Your task to perform on an android device: Open Maps and search for coffee Image 0: 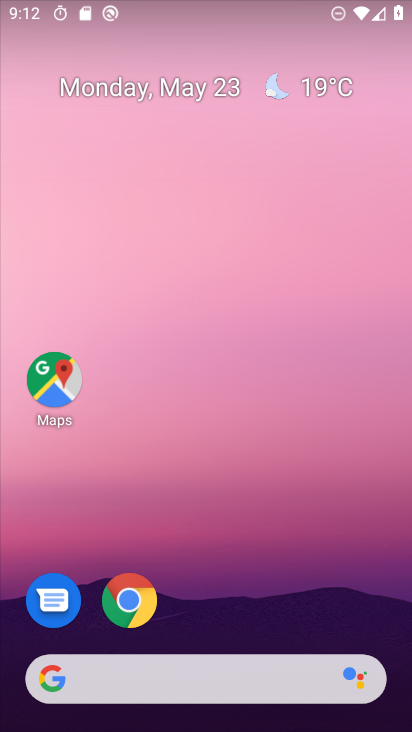
Step 0: press home button
Your task to perform on an android device: Open Maps and search for coffee Image 1: 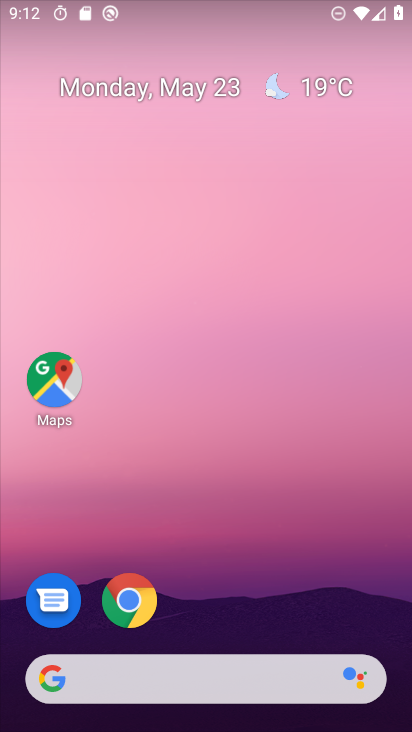
Step 1: click (125, 680)
Your task to perform on an android device: Open Maps and search for coffee Image 2: 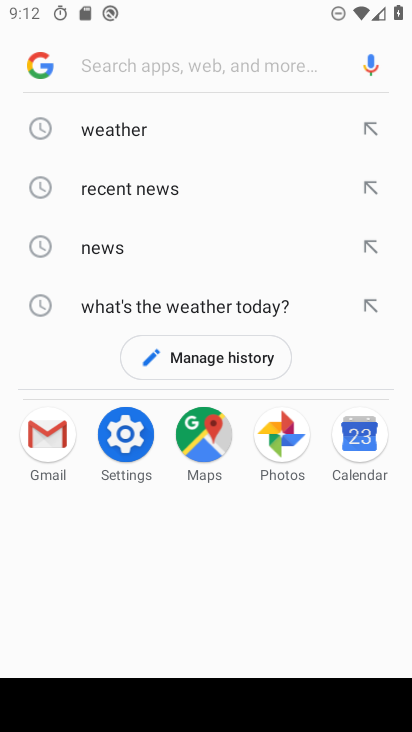
Step 2: press home button
Your task to perform on an android device: Open Maps and search for coffee Image 3: 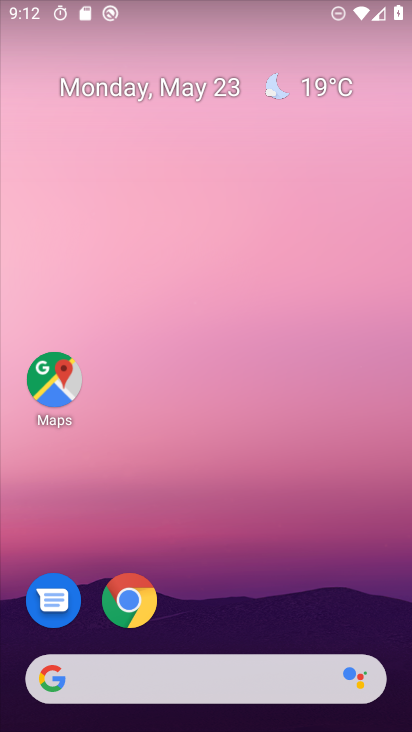
Step 3: click (60, 372)
Your task to perform on an android device: Open Maps and search for coffee Image 4: 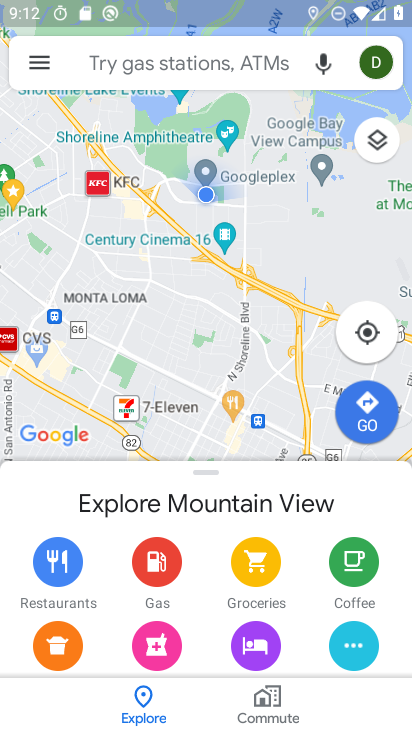
Step 4: click (148, 57)
Your task to perform on an android device: Open Maps and search for coffee Image 5: 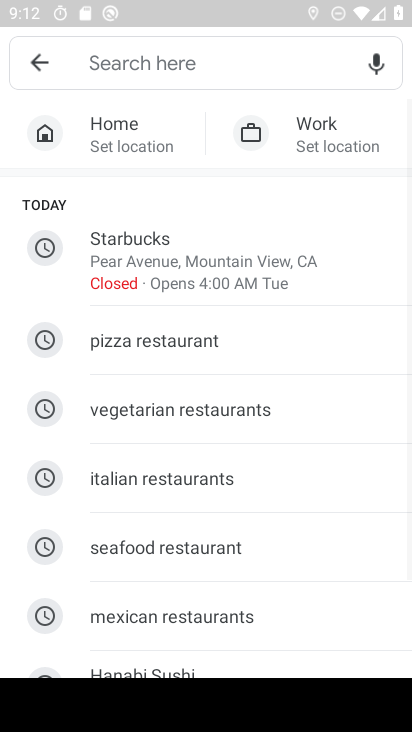
Step 5: drag from (200, 639) to (281, 226)
Your task to perform on an android device: Open Maps and search for coffee Image 6: 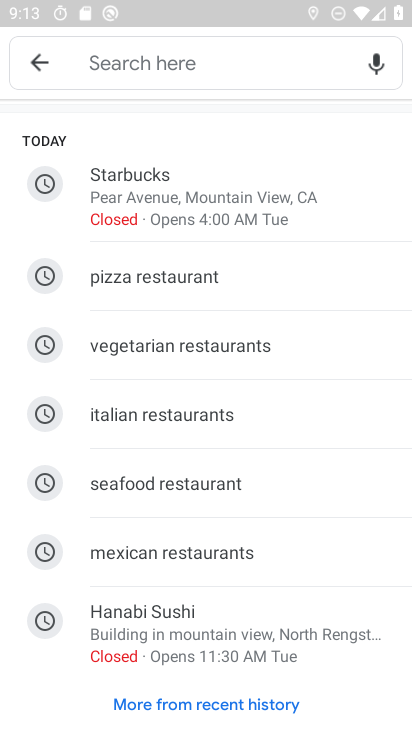
Step 6: click (135, 45)
Your task to perform on an android device: Open Maps and search for coffee Image 7: 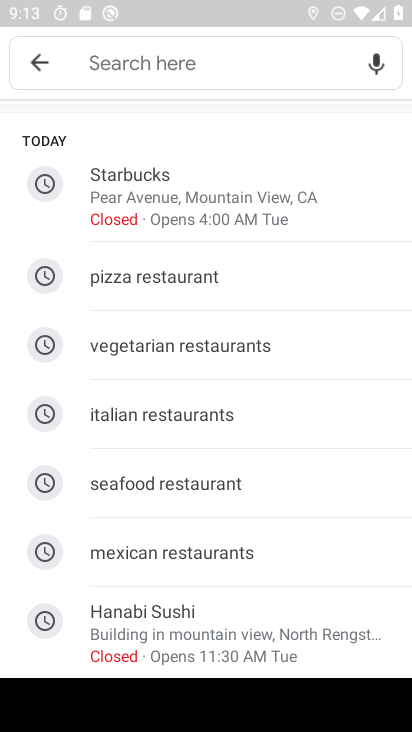
Step 7: type "coffee"
Your task to perform on an android device: Open Maps and search for coffee Image 8: 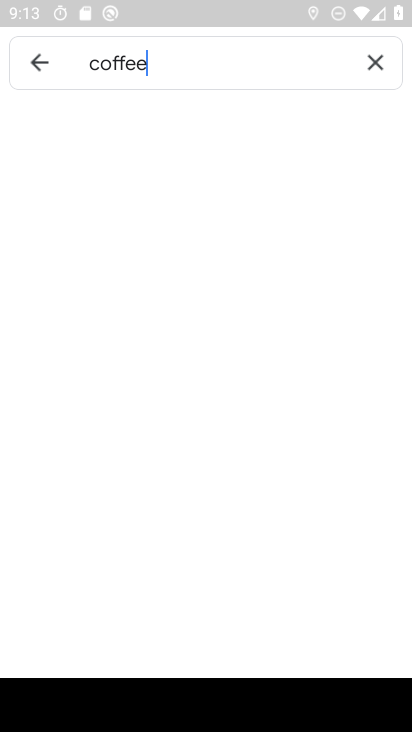
Step 8: type ""
Your task to perform on an android device: Open Maps and search for coffee Image 9: 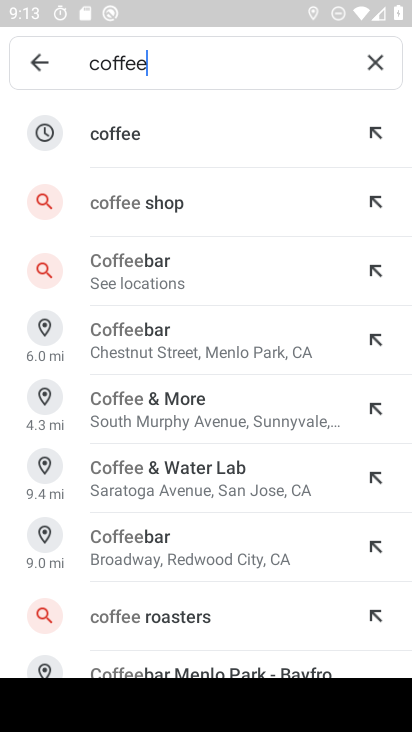
Step 9: click (118, 136)
Your task to perform on an android device: Open Maps and search for coffee Image 10: 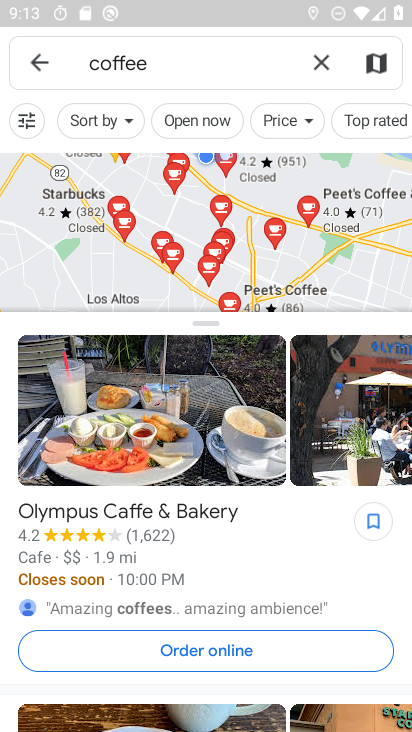
Step 10: task complete